Your task to perform on an android device: open device folders in google photos Image 0: 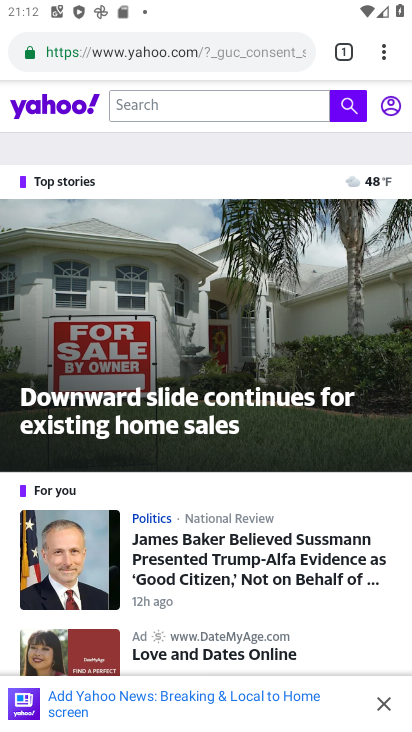
Step 0: press home button
Your task to perform on an android device: open device folders in google photos Image 1: 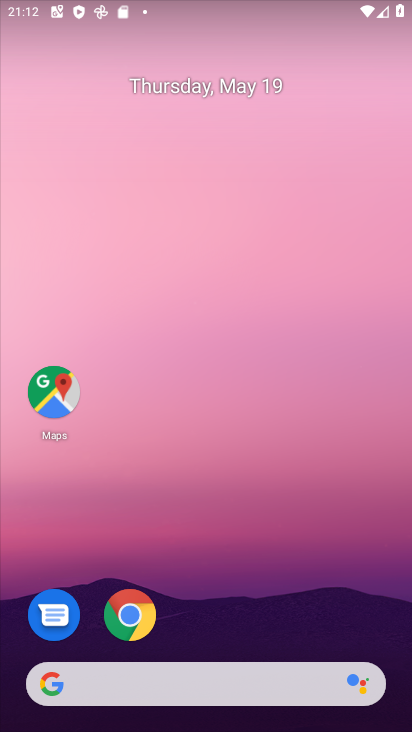
Step 1: drag from (232, 557) to (248, 89)
Your task to perform on an android device: open device folders in google photos Image 2: 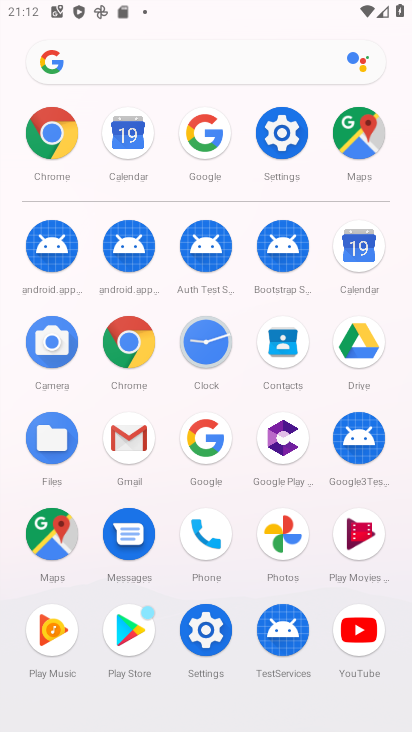
Step 2: click (282, 533)
Your task to perform on an android device: open device folders in google photos Image 3: 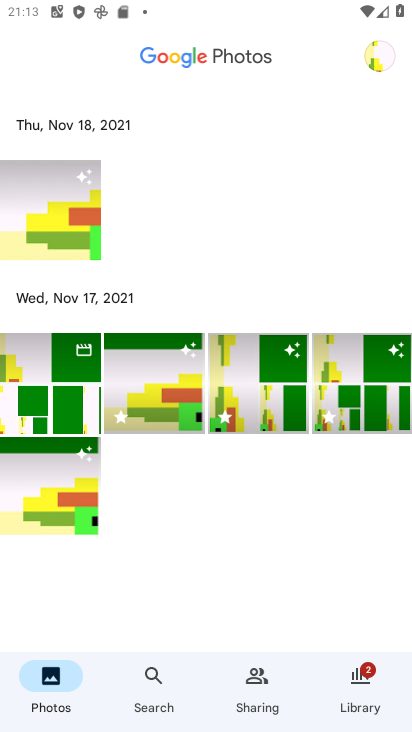
Step 3: click (372, 54)
Your task to perform on an android device: open device folders in google photos Image 4: 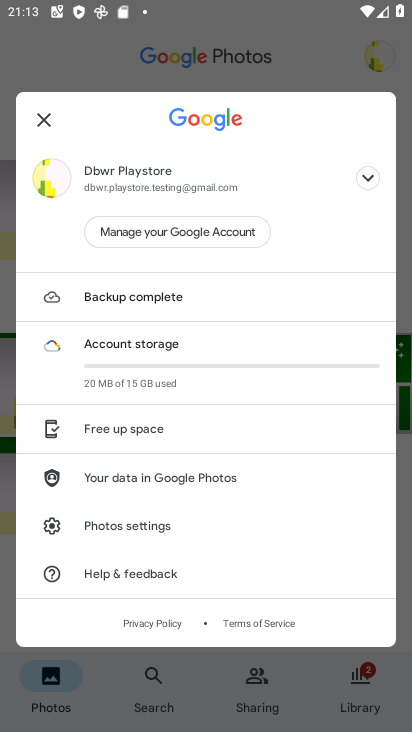
Step 4: task complete